Your task to perform on an android device: Search for Italian restaurants on Maps Image 0: 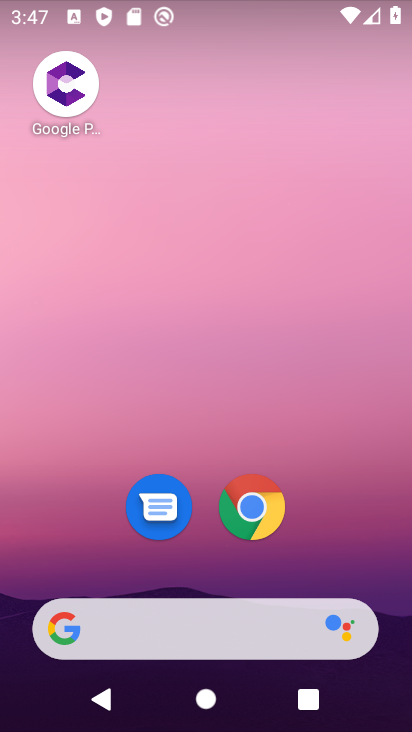
Step 0: drag from (342, 377) to (306, 3)
Your task to perform on an android device: Search for Italian restaurants on Maps Image 1: 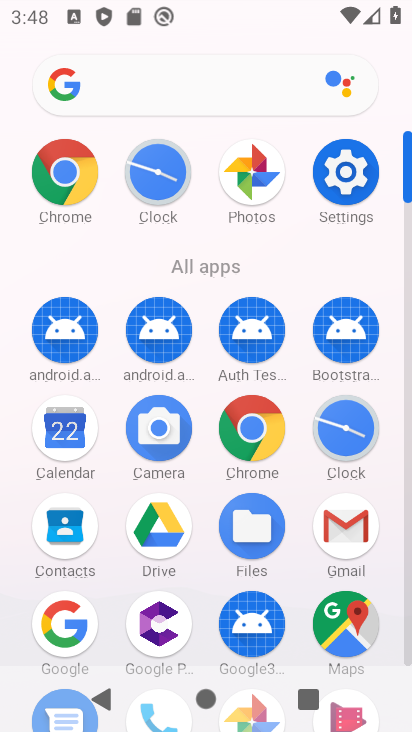
Step 1: drag from (406, 382) to (408, 545)
Your task to perform on an android device: Search for Italian restaurants on Maps Image 2: 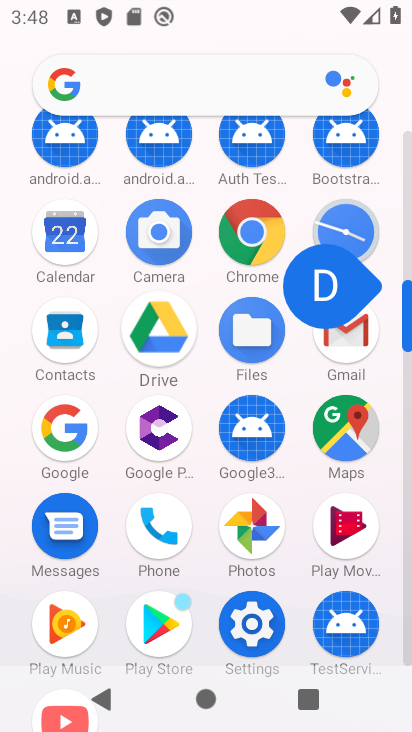
Step 2: click (351, 441)
Your task to perform on an android device: Search for Italian restaurants on Maps Image 3: 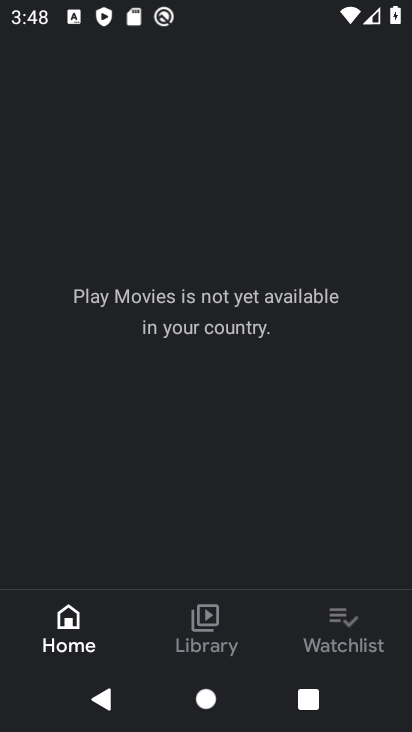
Step 3: press home button
Your task to perform on an android device: Search for Italian restaurants on Maps Image 4: 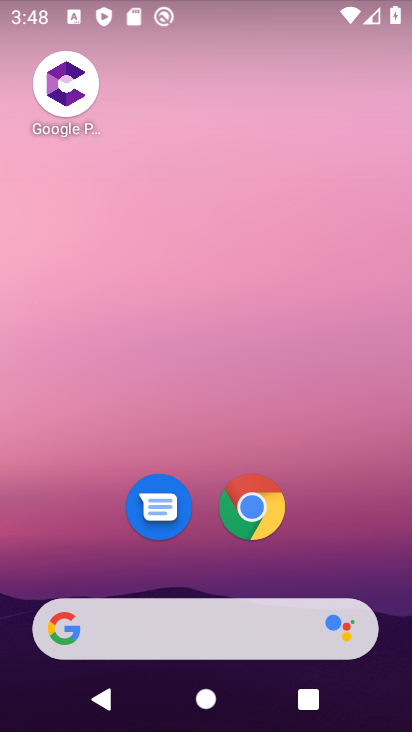
Step 4: drag from (402, 369) to (396, 25)
Your task to perform on an android device: Search for Italian restaurants on Maps Image 5: 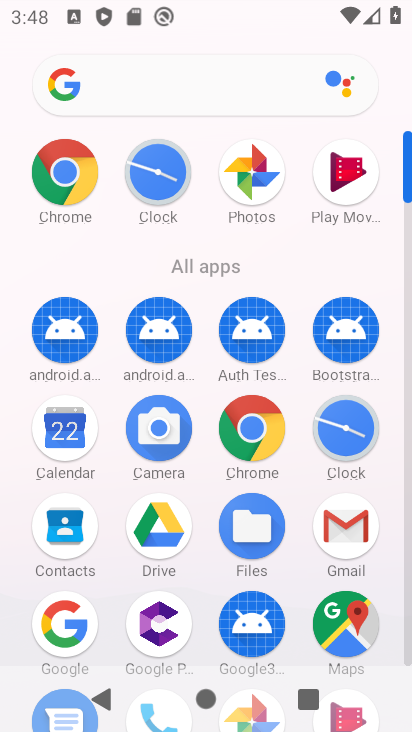
Step 5: click (359, 611)
Your task to perform on an android device: Search for Italian restaurants on Maps Image 6: 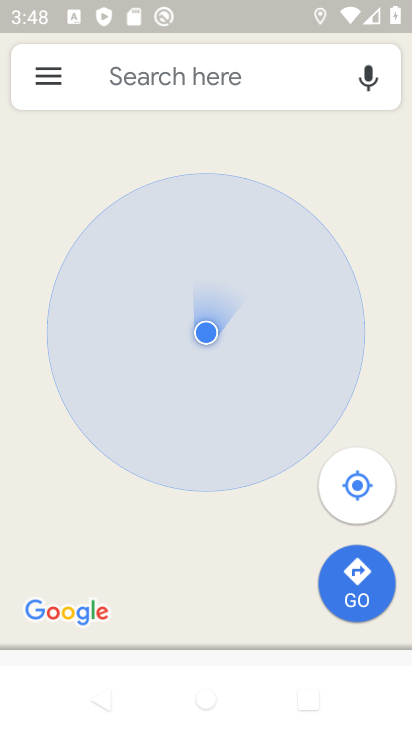
Step 6: click (234, 84)
Your task to perform on an android device: Search for Italian restaurants on Maps Image 7: 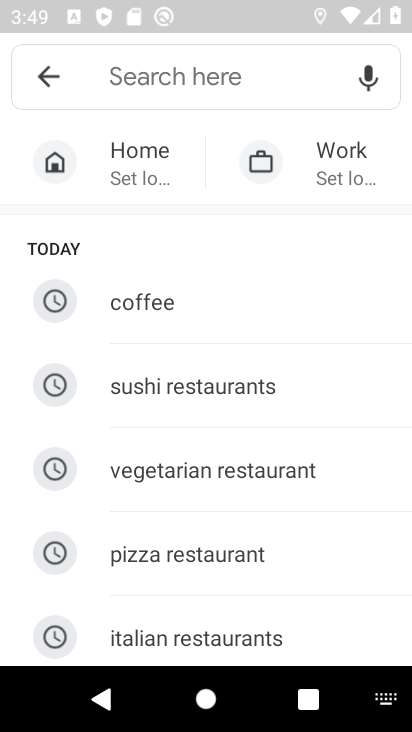
Step 7: click (299, 636)
Your task to perform on an android device: Search for Italian restaurants on Maps Image 8: 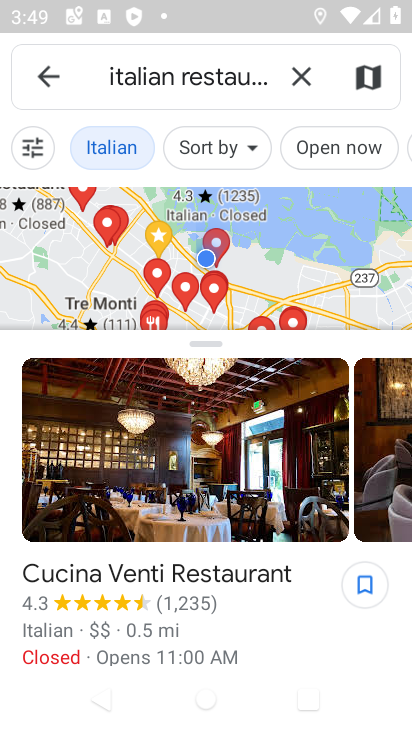
Step 8: task complete